Your task to perform on an android device: View the shopping cart on newegg.com. Add logitech g pro to the cart on newegg.com, then select checkout. Image 0: 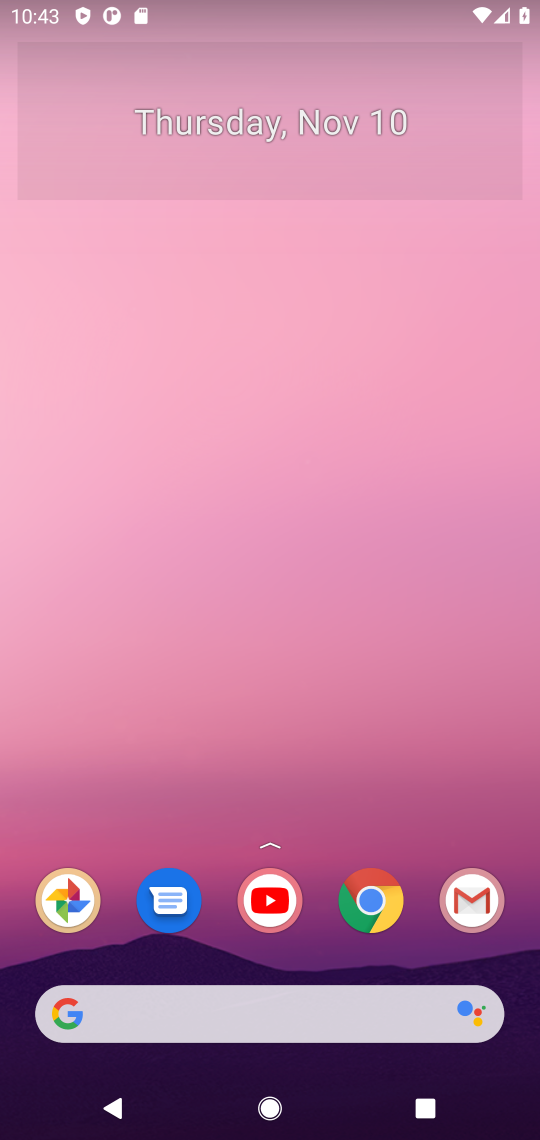
Step 0: click (369, 907)
Your task to perform on an android device: View the shopping cart on newegg.com. Add logitech g pro to the cart on newegg.com, then select checkout. Image 1: 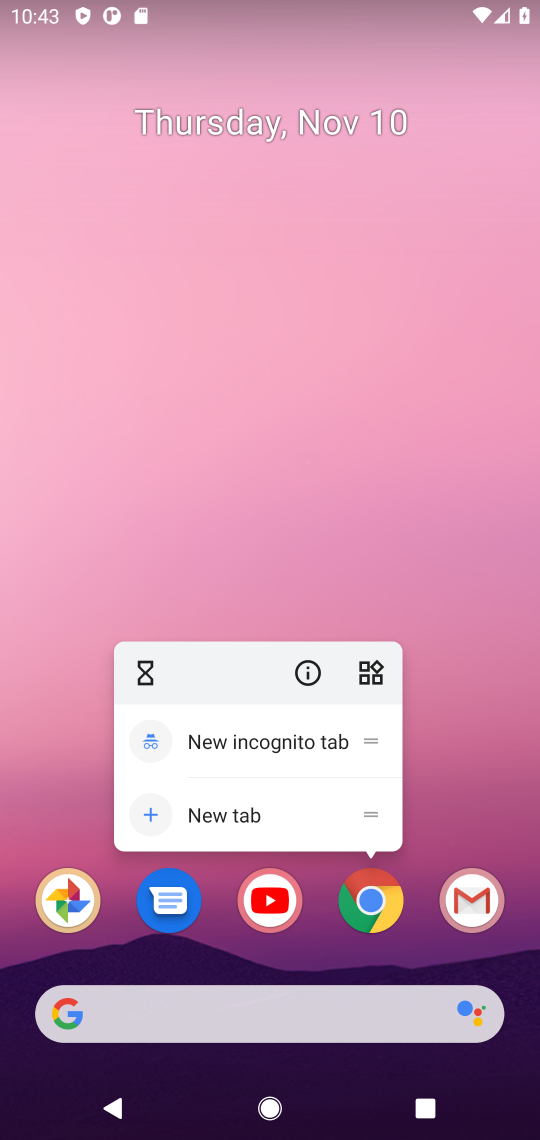
Step 1: click (373, 900)
Your task to perform on an android device: View the shopping cart on newegg.com. Add logitech g pro to the cart on newegg.com, then select checkout. Image 2: 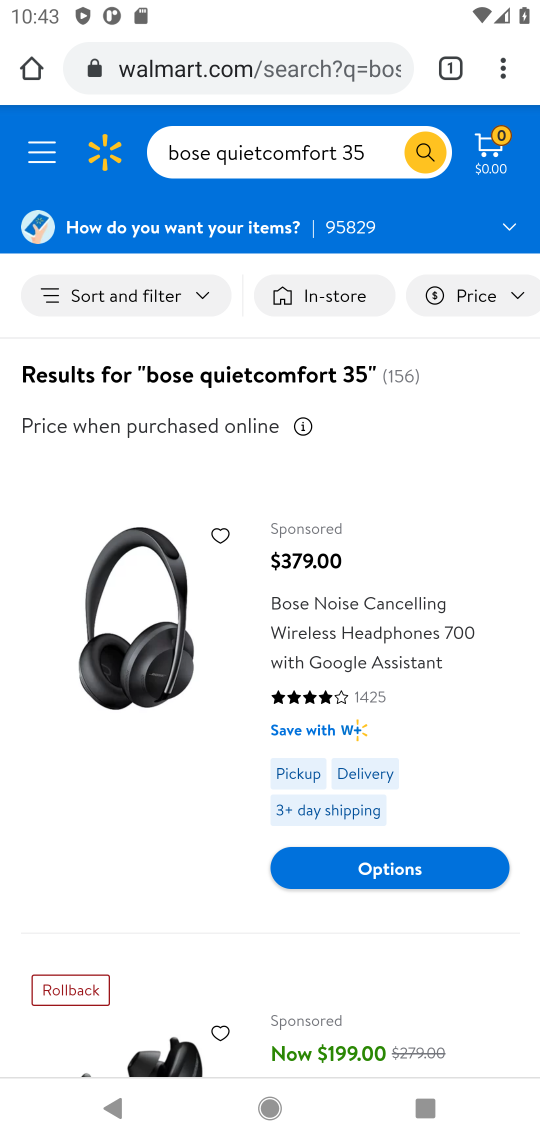
Step 2: click (340, 65)
Your task to perform on an android device: View the shopping cart on newegg.com. Add logitech g pro to the cart on newegg.com, then select checkout. Image 3: 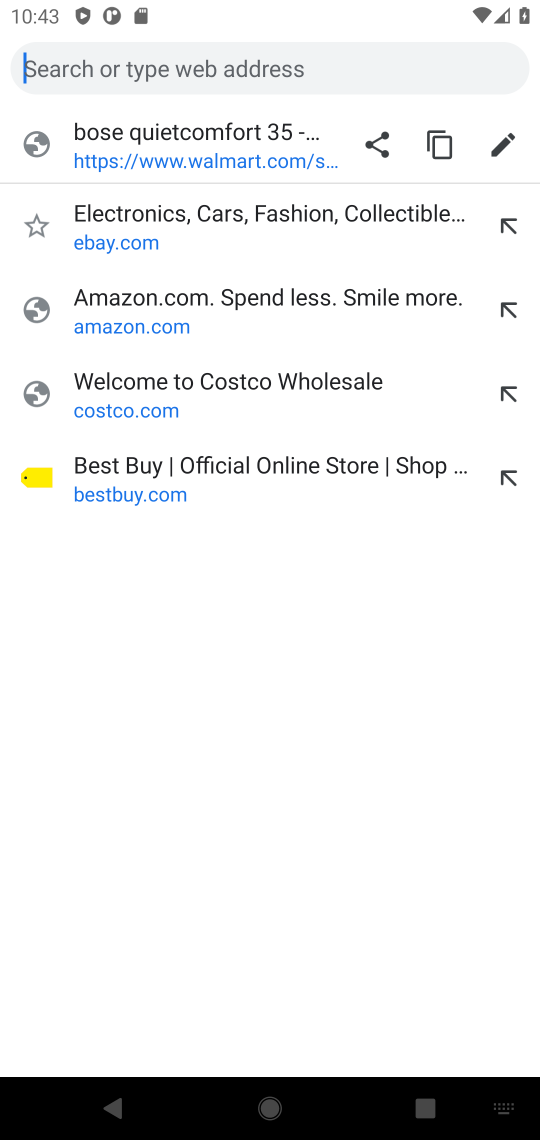
Step 3: type "newegg.com"
Your task to perform on an android device: View the shopping cart on newegg.com. Add logitech g pro to the cart on newegg.com, then select checkout. Image 4: 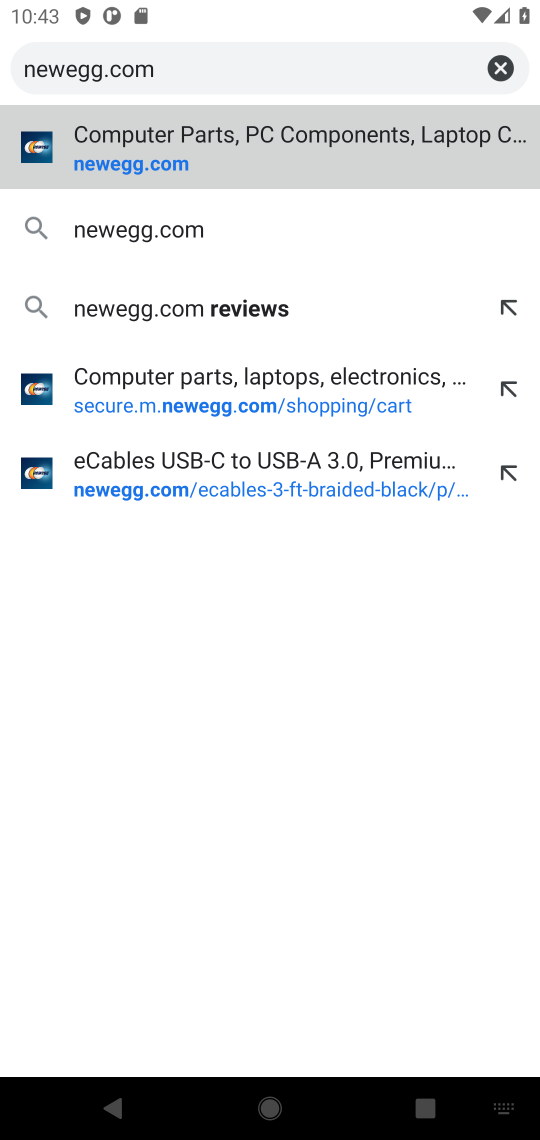
Step 4: press enter
Your task to perform on an android device: View the shopping cart on newegg.com. Add logitech g pro to the cart on newegg.com, then select checkout. Image 5: 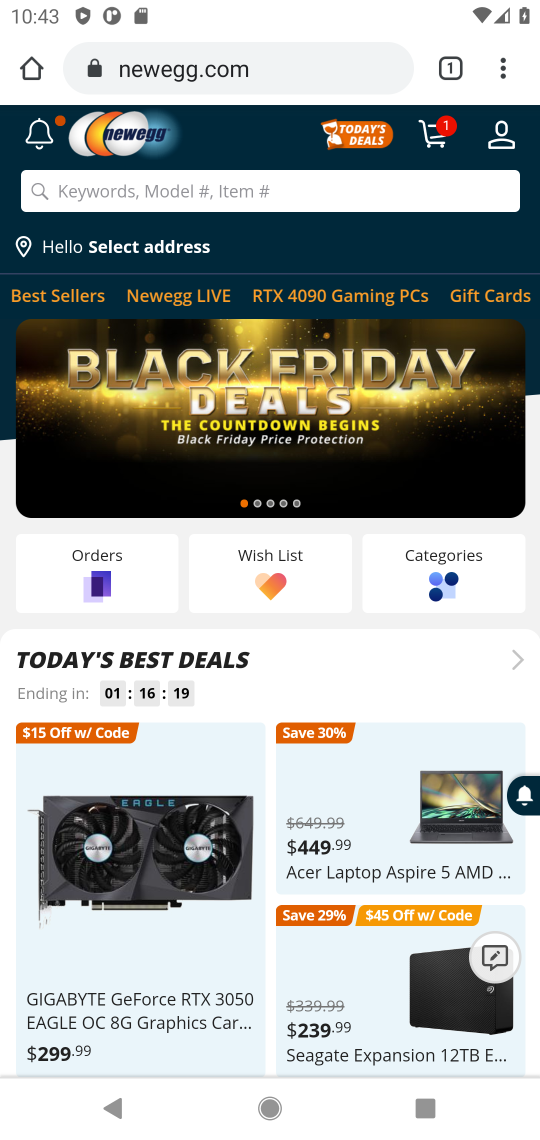
Step 5: click (177, 189)
Your task to perform on an android device: View the shopping cart on newegg.com. Add logitech g pro to the cart on newegg.com, then select checkout. Image 6: 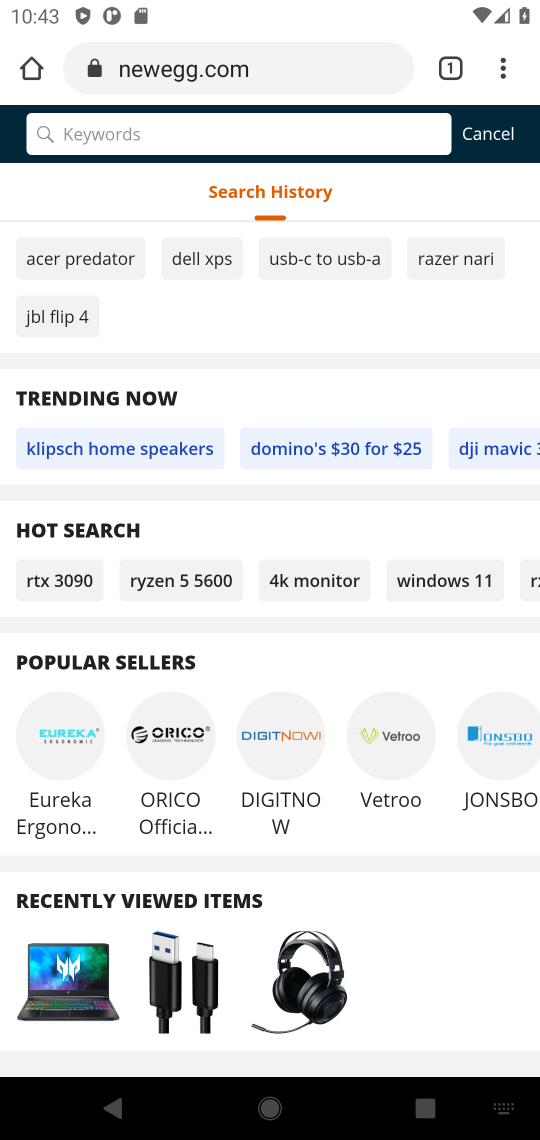
Step 6: press enter
Your task to perform on an android device: View the shopping cart on newegg.com. Add logitech g pro to the cart on newegg.com, then select checkout. Image 7: 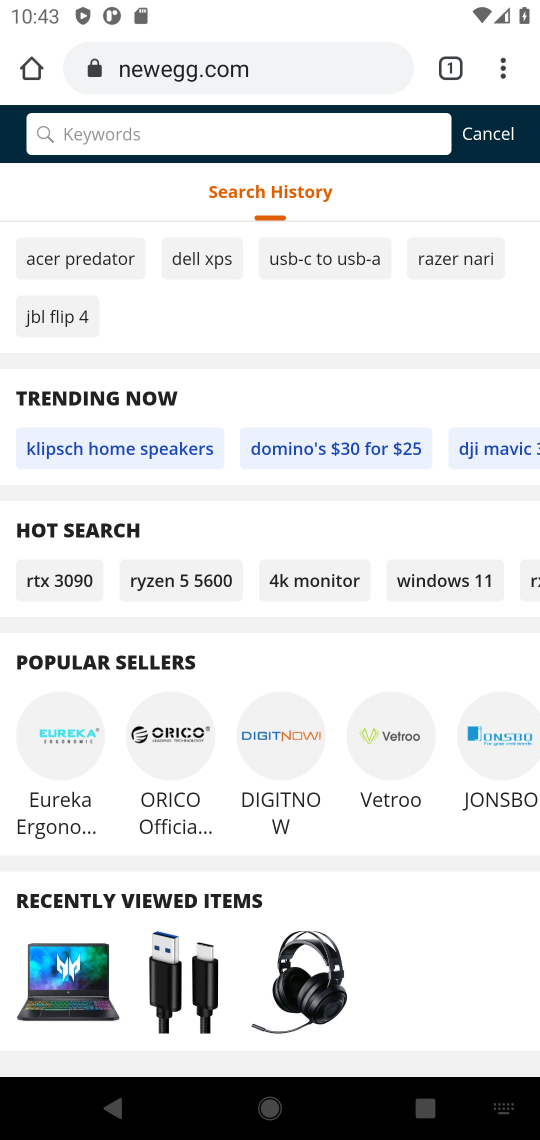
Step 7: type "logitech g pro "
Your task to perform on an android device: View the shopping cart on newegg.com. Add logitech g pro to the cart on newegg.com, then select checkout. Image 8: 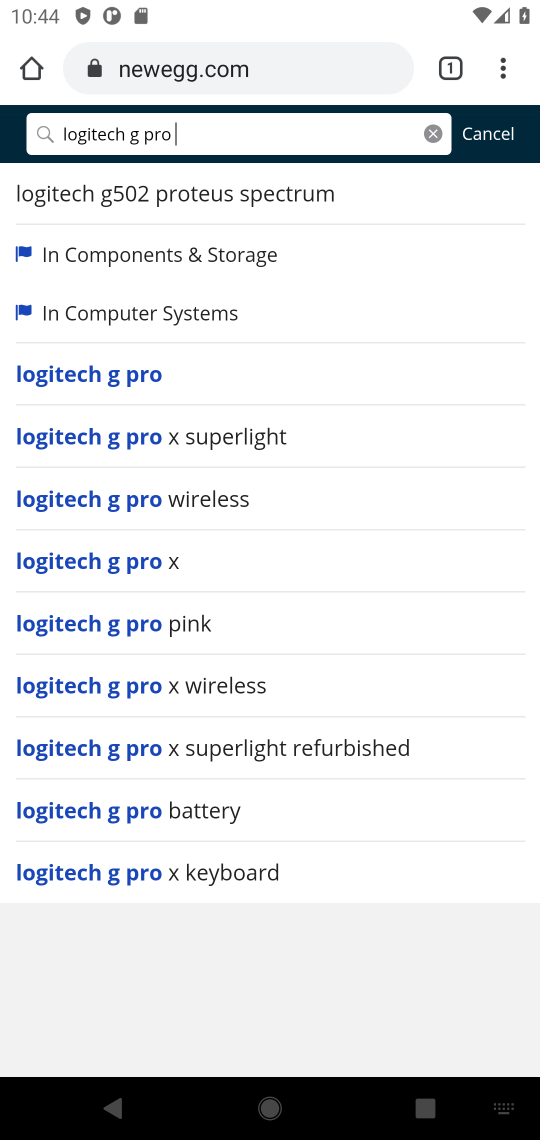
Step 8: press enter
Your task to perform on an android device: View the shopping cart on newegg.com. Add logitech g pro to the cart on newegg.com, then select checkout. Image 9: 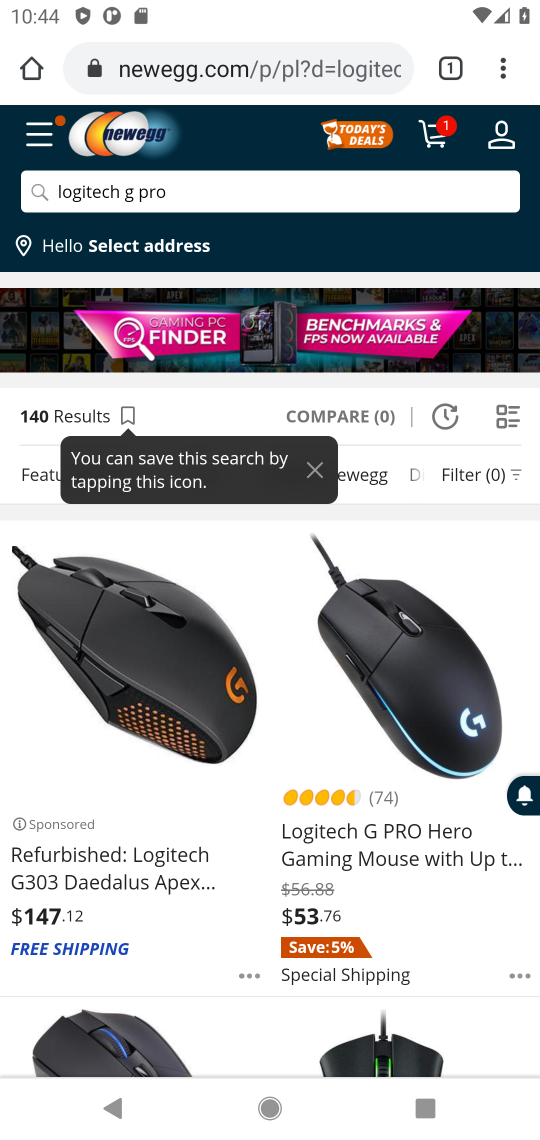
Step 9: click (411, 831)
Your task to perform on an android device: View the shopping cart on newegg.com. Add logitech g pro to the cart on newegg.com, then select checkout. Image 10: 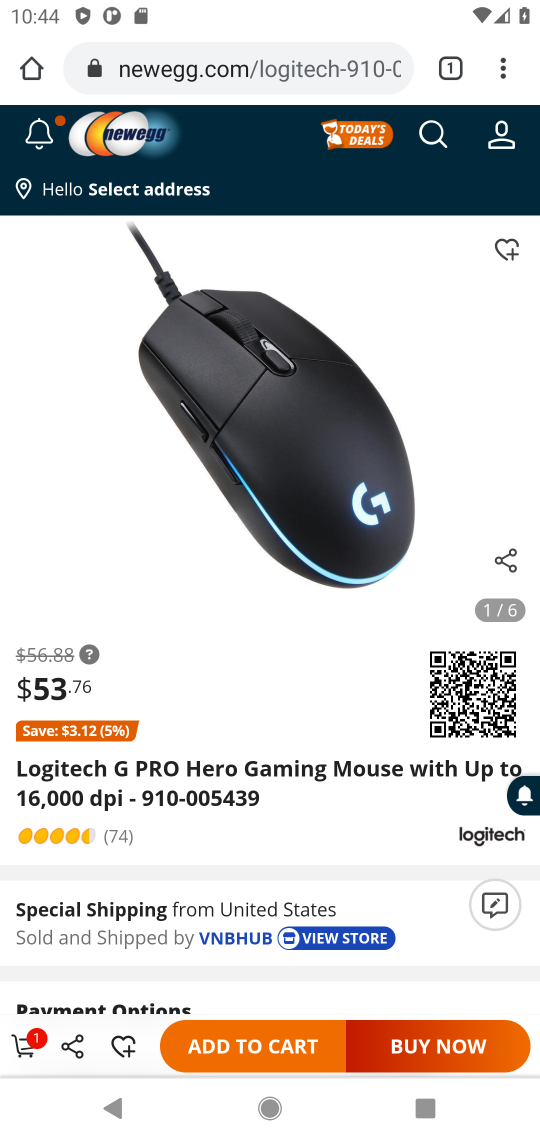
Step 10: drag from (246, 837) to (329, 346)
Your task to perform on an android device: View the shopping cart on newegg.com. Add logitech g pro to the cart on newegg.com, then select checkout. Image 11: 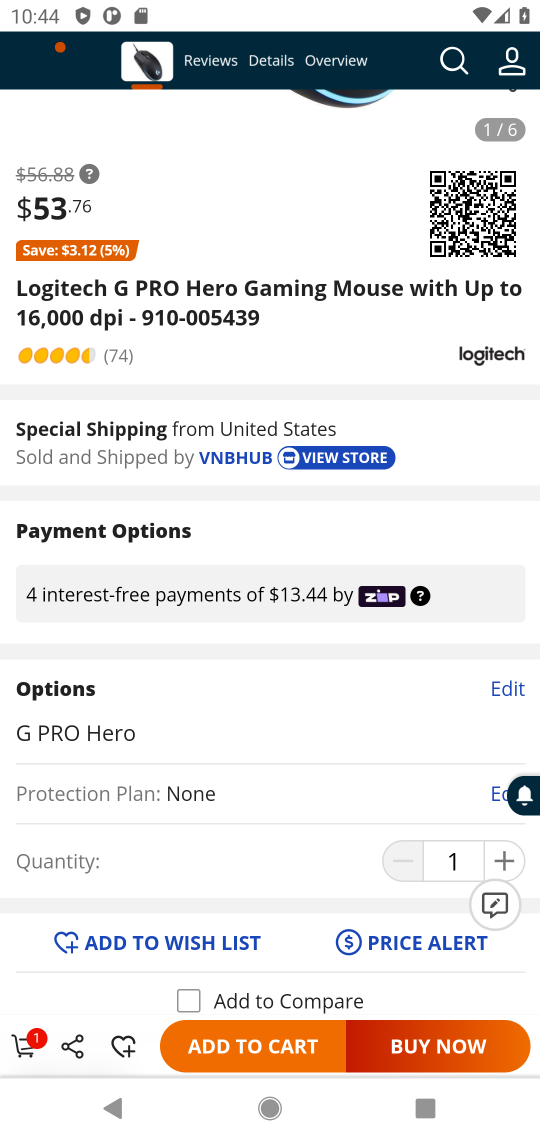
Step 11: click (273, 1051)
Your task to perform on an android device: View the shopping cart on newegg.com. Add logitech g pro to the cart on newegg.com, then select checkout. Image 12: 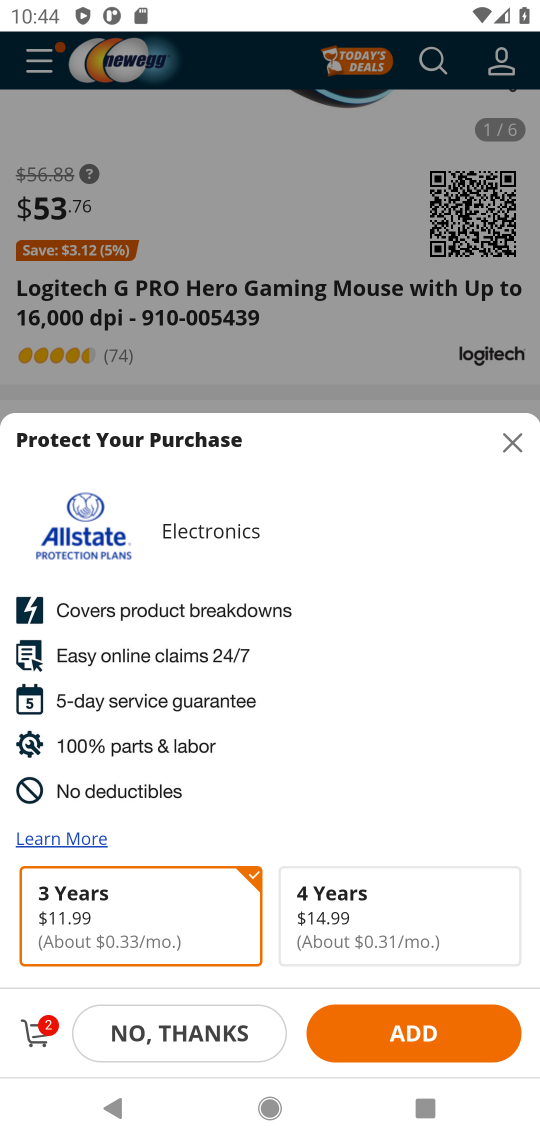
Step 12: click (39, 1032)
Your task to perform on an android device: View the shopping cart on newegg.com. Add logitech g pro to the cart on newegg.com, then select checkout. Image 13: 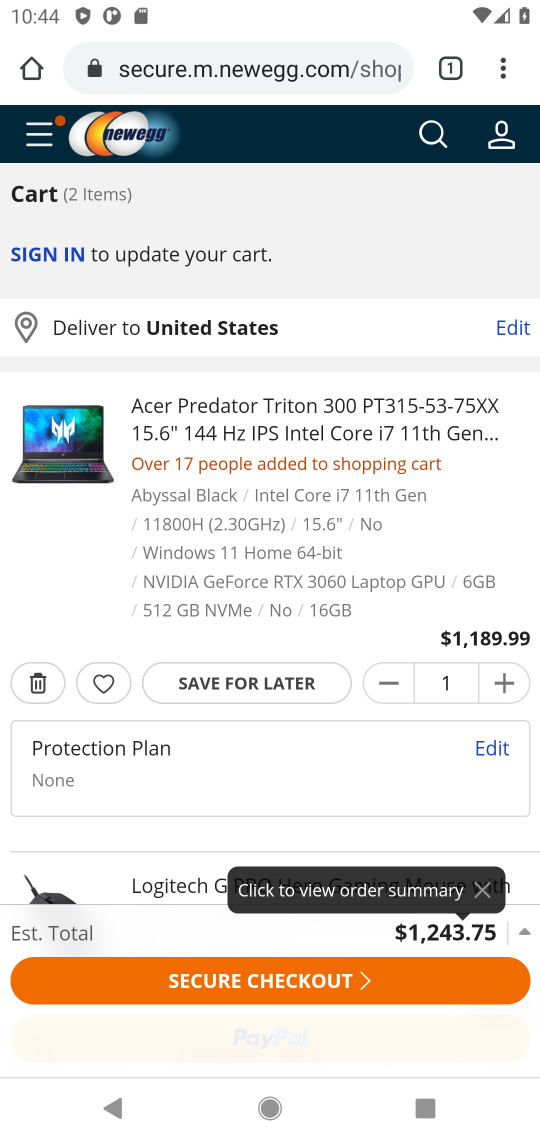
Step 13: click (37, 677)
Your task to perform on an android device: View the shopping cart on newegg.com. Add logitech g pro to the cart on newegg.com, then select checkout. Image 14: 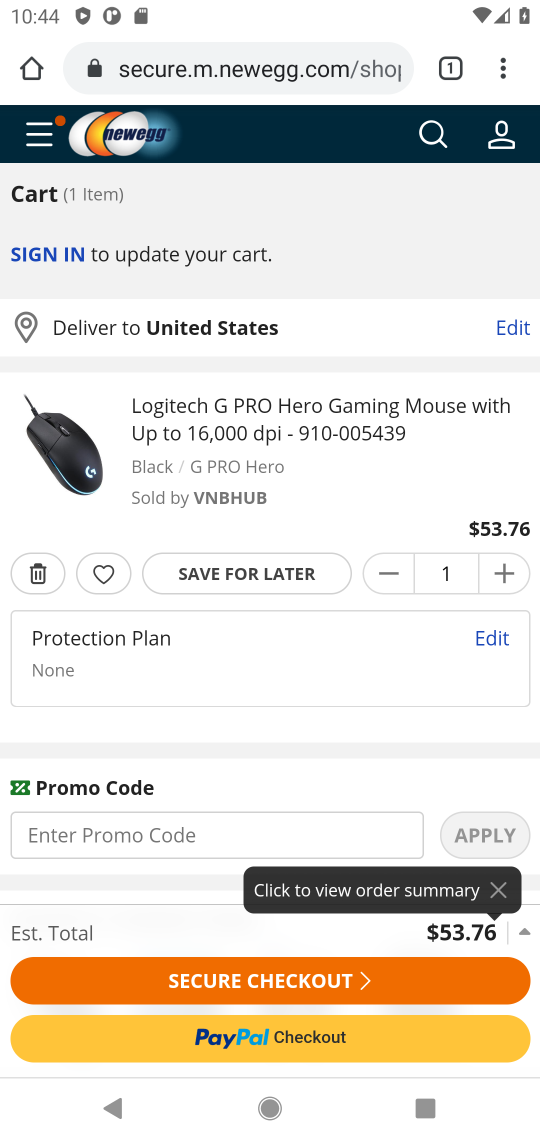
Step 14: click (327, 984)
Your task to perform on an android device: View the shopping cart on newegg.com. Add logitech g pro to the cart on newegg.com, then select checkout. Image 15: 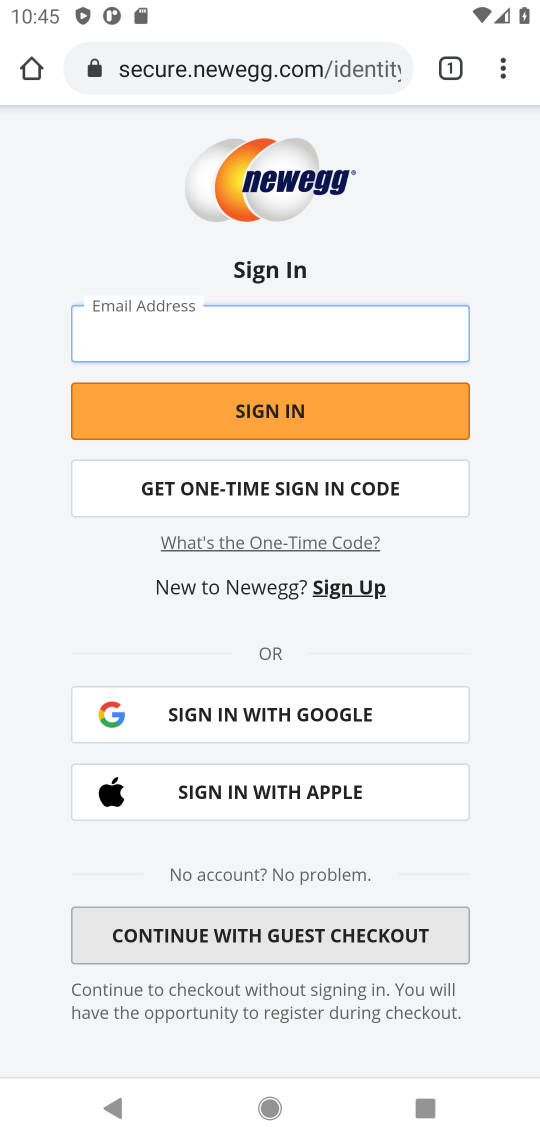
Step 15: task complete